Your task to perform on an android device: find which apps use the phone's location Image 0: 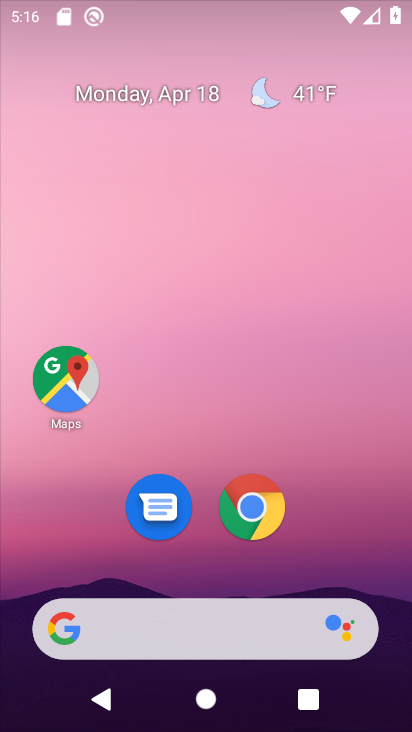
Step 0: drag from (308, 485) to (202, 38)
Your task to perform on an android device: find which apps use the phone's location Image 1: 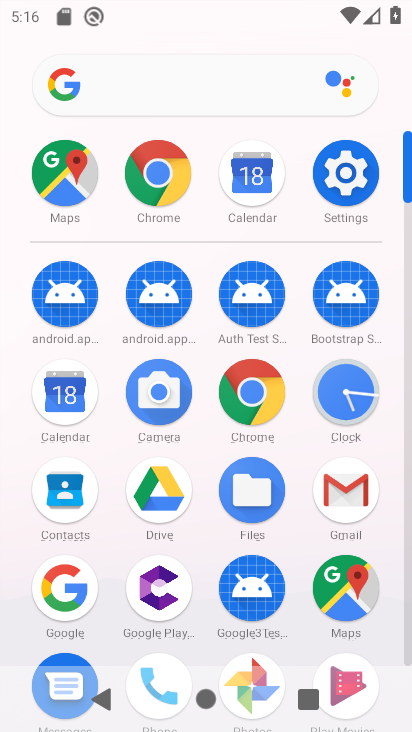
Step 1: click (354, 177)
Your task to perform on an android device: find which apps use the phone's location Image 2: 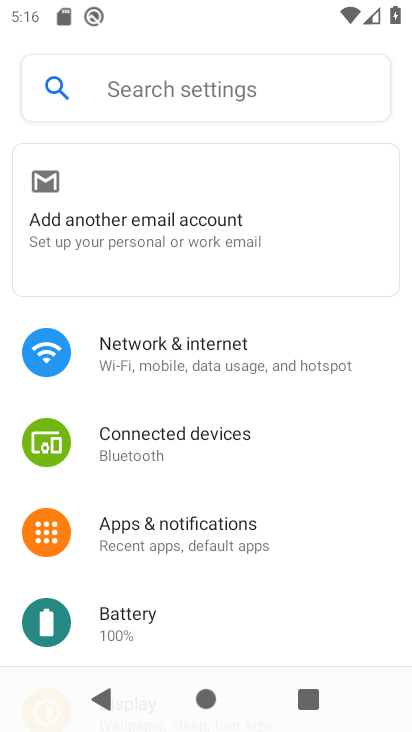
Step 2: drag from (303, 613) to (287, 240)
Your task to perform on an android device: find which apps use the phone's location Image 3: 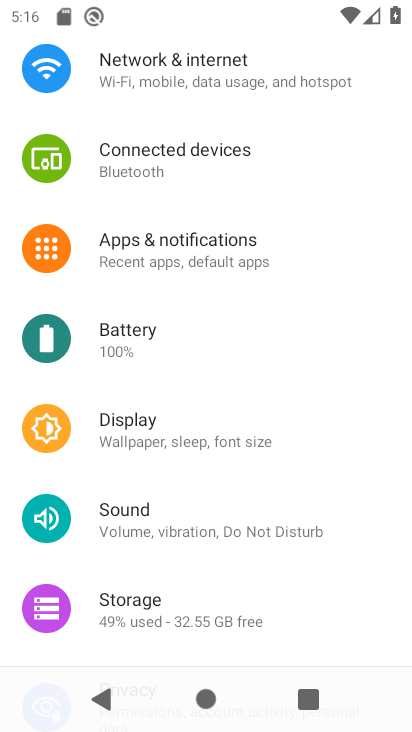
Step 3: drag from (245, 601) to (221, 279)
Your task to perform on an android device: find which apps use the phone's location Image 4: 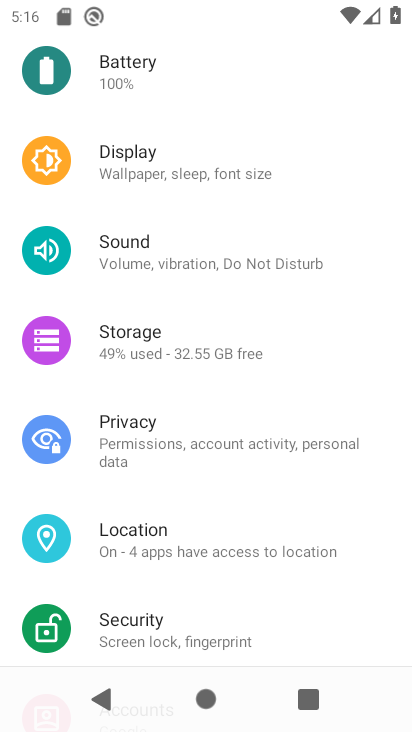
Step 4: click (208, 538)
Your task to perform on an android device: find which apps use the phone's location Image 5: 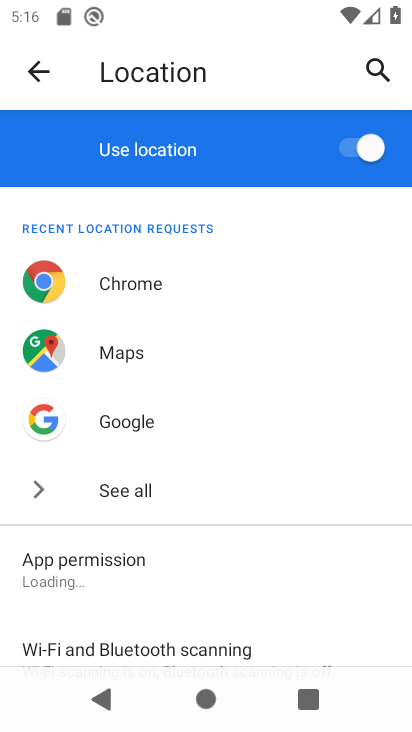
Step 5: click (127, 576)
Your task to perform on an android device: find which apps use the phone's location Image 6: 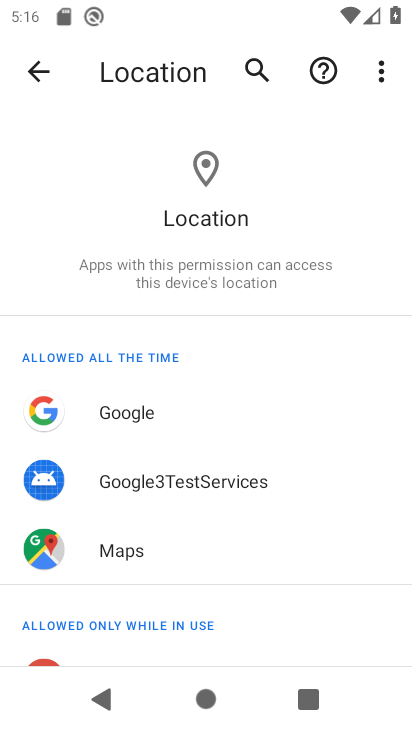
Step 6: drag from (289, 639) to (235, 270)
Your task to perform on an android device: find which apps use the phone's location Image 7: 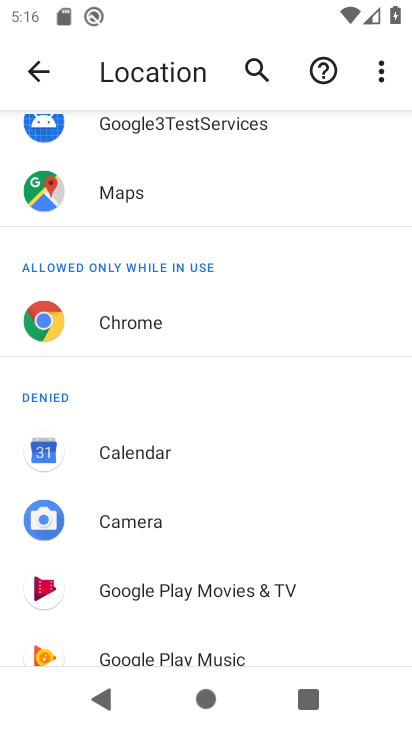
Step 7: drag from (230, 222) to (304, 725)
Your task to perform on an android device: find which apps use the phone's location Image 8: 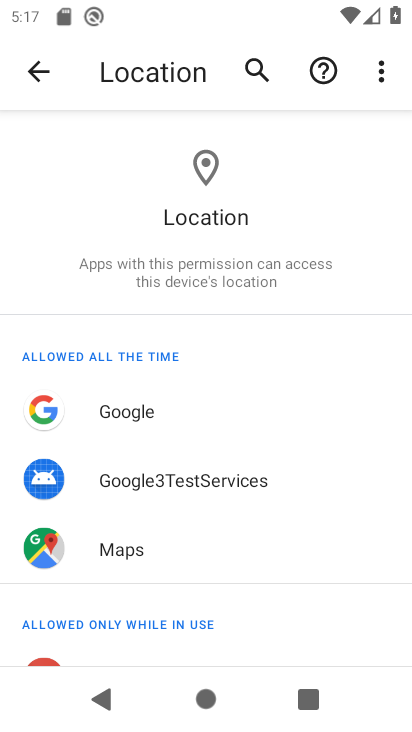
Step 8: drag from (250, 619) to (216, 374)
Your task to perform on an android device: find which apps use the phone's location Image 9: 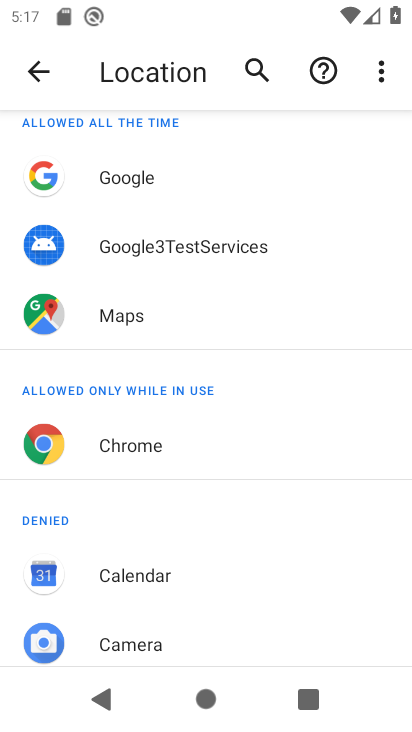
Step 9: click (130, 245)
Your task to perform on an android device: find which apps use the phone's location Image 10: 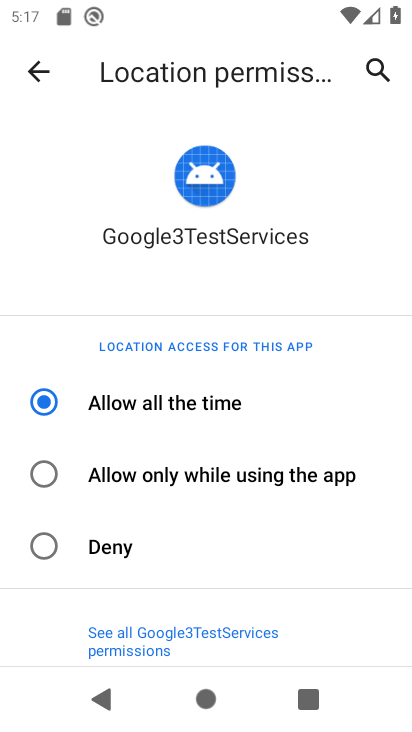
Step 10: task complete